Your task to perform on an android device: Open notification settings Image 0: 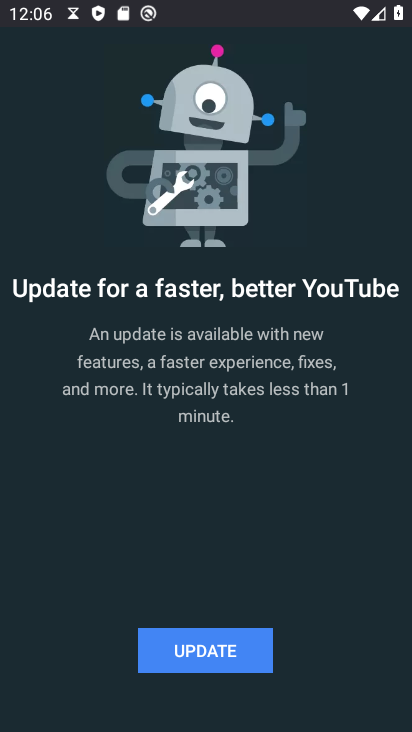
Step 0: press back button
Your task to perform on an android device: Open notification settings Image 1: 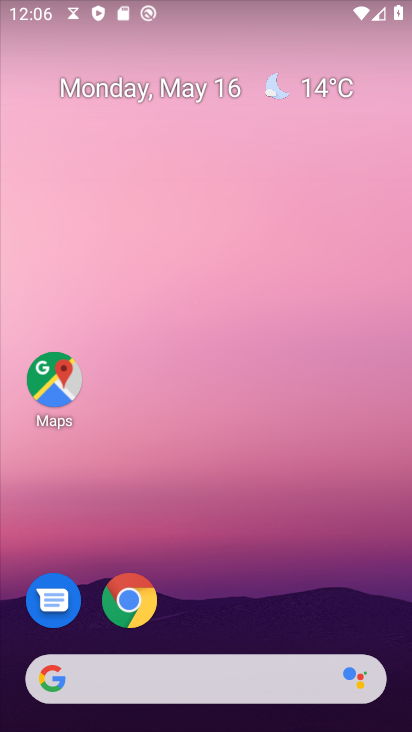
Step 1: drag from (252, 575) to (240, 29)
Your task to perform on an android device: Open notification settings Image 2: 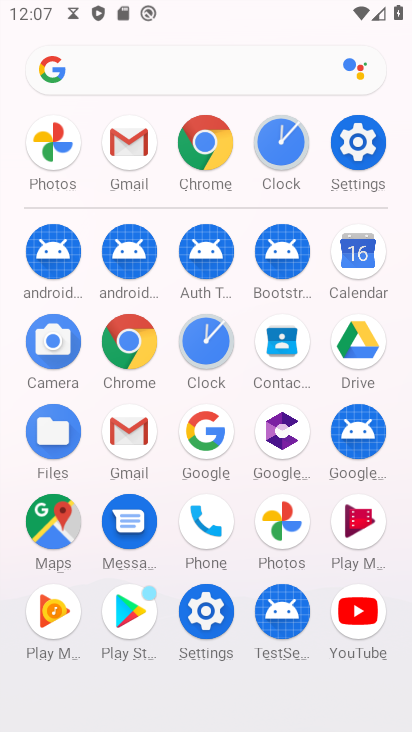
Step 2: click (206, 610)
Your task to perform on an android device: Open notification settings Image 3: 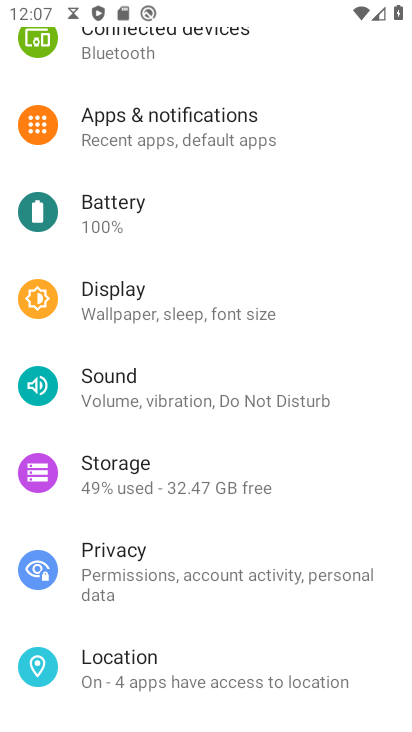
Step 3: drag from (243, 510) to (218, 627)
Your task to perform on an android device: Open notification settings Image 4: 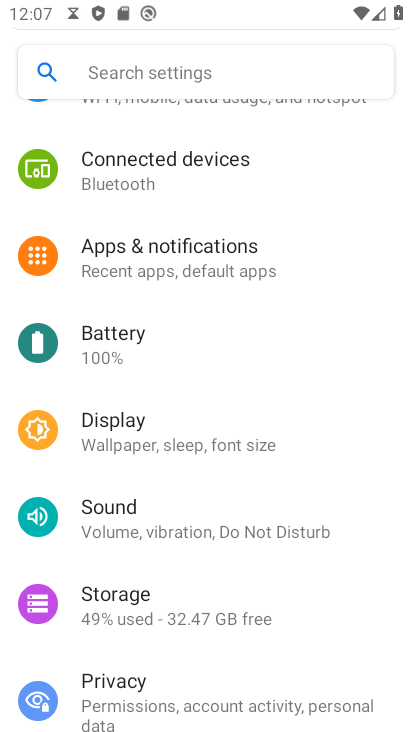
Step 4: click (177, 260)
Your task to perform on an android device: Open notification settings Image 5: 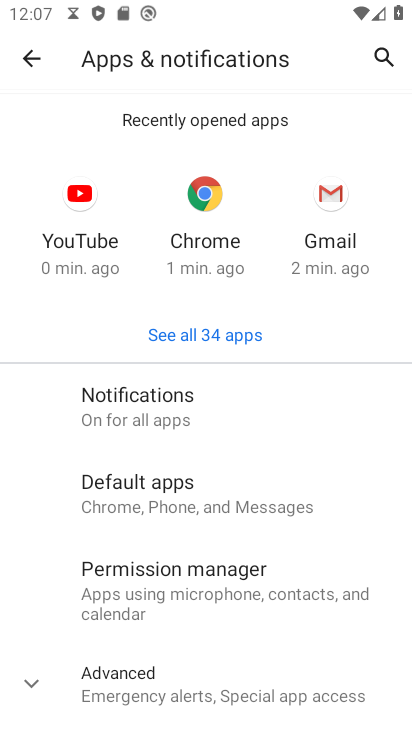
Step 5: click (42, 679)
Your task to perform on an android device: Open notification settings Image 6: 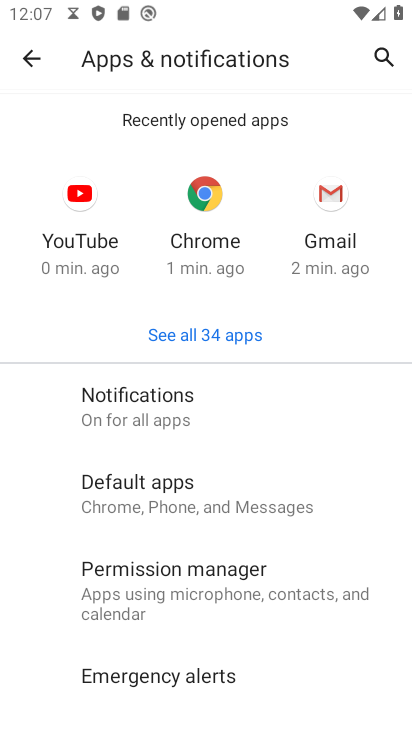
Step 6: click (151, 395)
Your task to perform on an android device: Open notification settings Image 7: 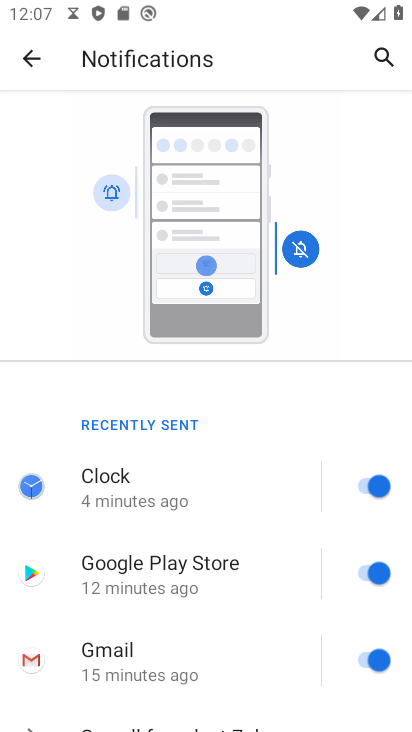
Step 7: drag from (143, 622) to (136, 209)
Your task to perform on an android device: Open notification settings Image 8: 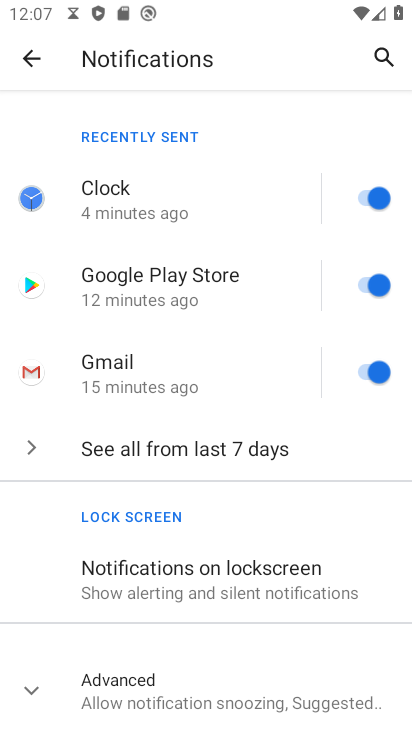
Step 8: click (33, 704)
Your task to perform on an android device: Open notification settings Image 9: 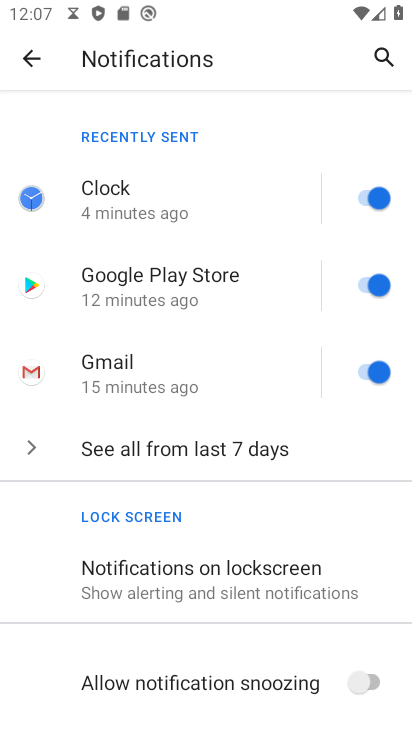
Step 9: task complete